Your task to perform on an android device: change text size in settings app Image 0: 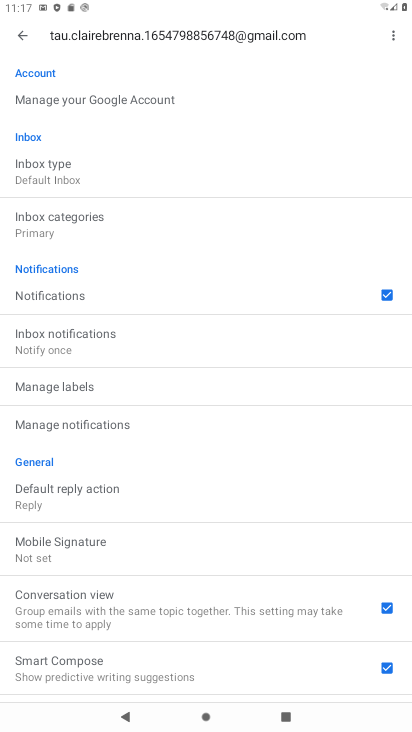
Step 0: press home button
Your task to perform on an android device: change text size in settings app Image 1: 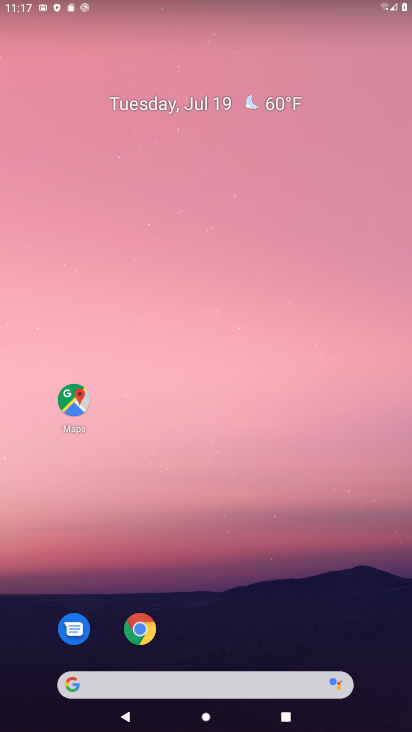
Step 1: drag from (259, 632) to (279, 179)
Your task to perform on an android device: change text size in settings app Image 2: 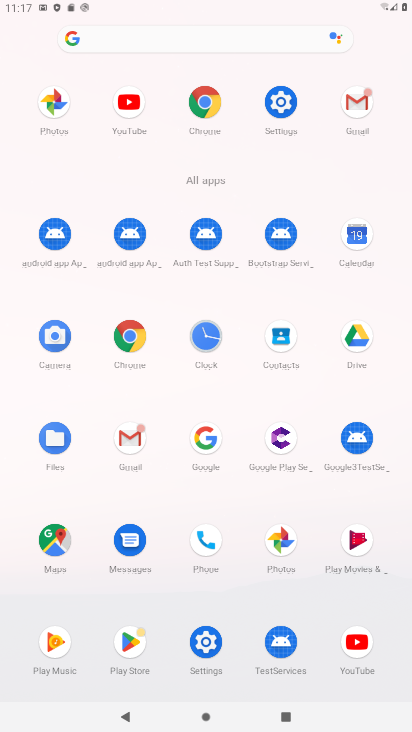
Step 2: click (285, 104)
Your task to perform on an android device: change text size in settings app Image 3: 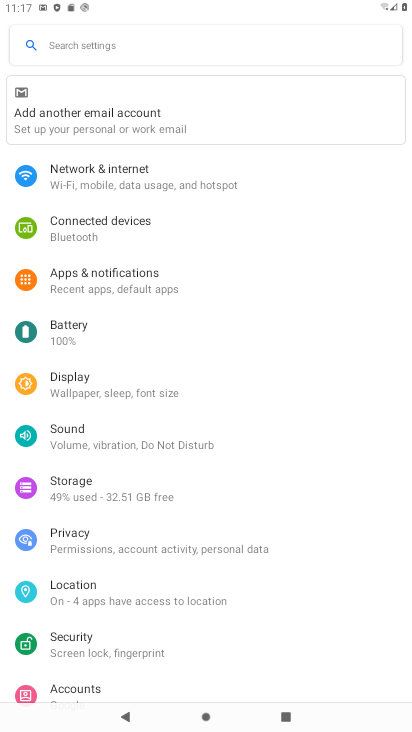
Step 3: click (174, 392)
Your task to perform on an android device: change text size in settings app Image 4: 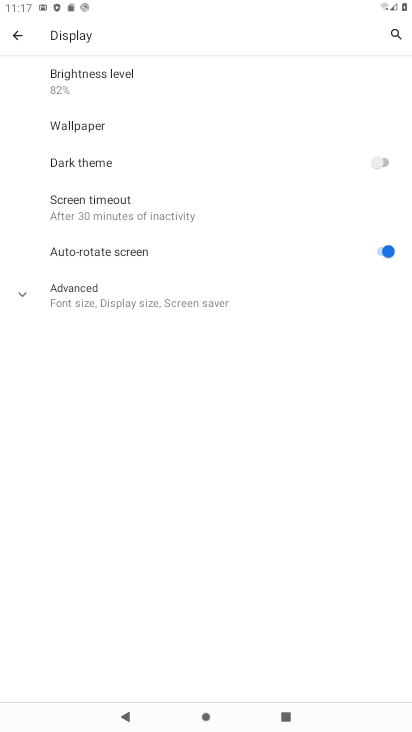
Step 4: click (222, 305)
Your task to perform on an android device: change text size in settings app Image 5: 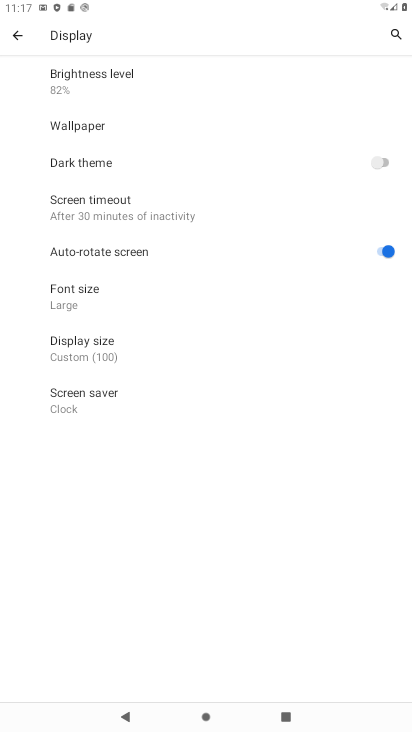
Step 5: click (149, 301)
Your task to perform on an android device: change text size in settings app Image 6: 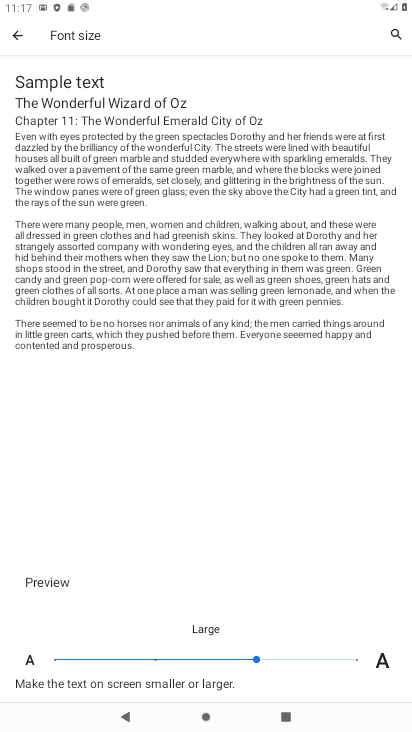
Step 6: click (355, 661)
Your task to perform on an android device: change text size in settings app Image 7: 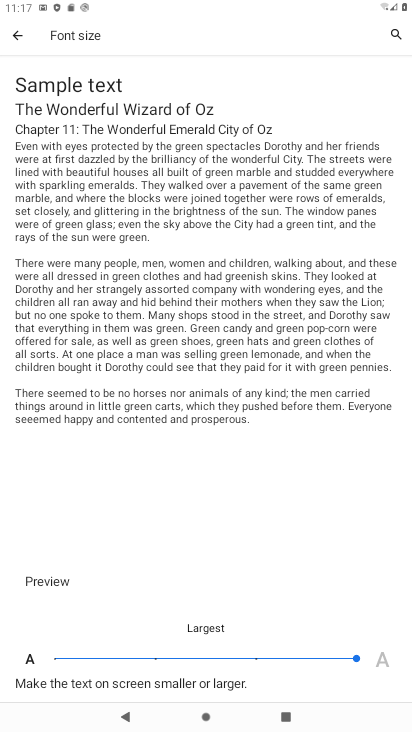
Step 7: task complete